Your task to perform on an android device: remove spam from my inbox in the gmail app Image 0: 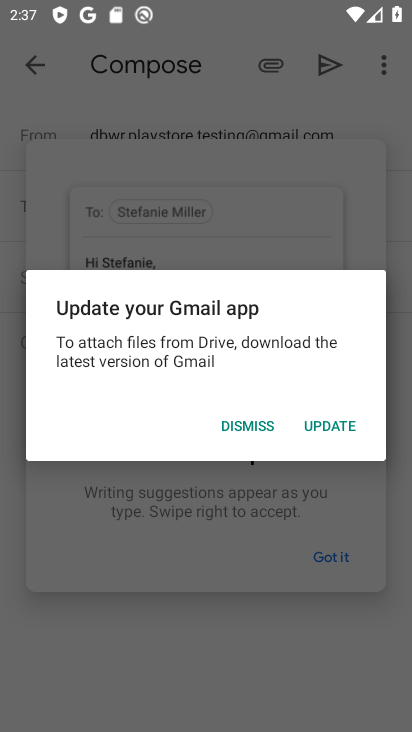
Step 0: press home button
Your task to perform on an android device: remove spam from my inbox in the gmail app Image 1: 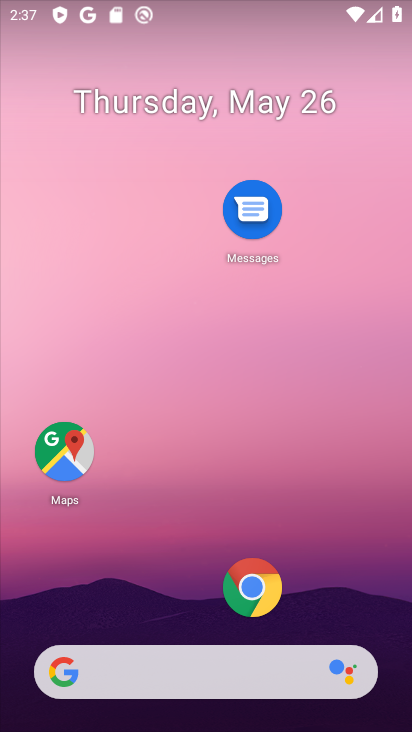
Step 1: drag from (180, 565) to (215, 216)
Your task to perform on an android device: remove spam from my inbox in the gmail app Image 2: 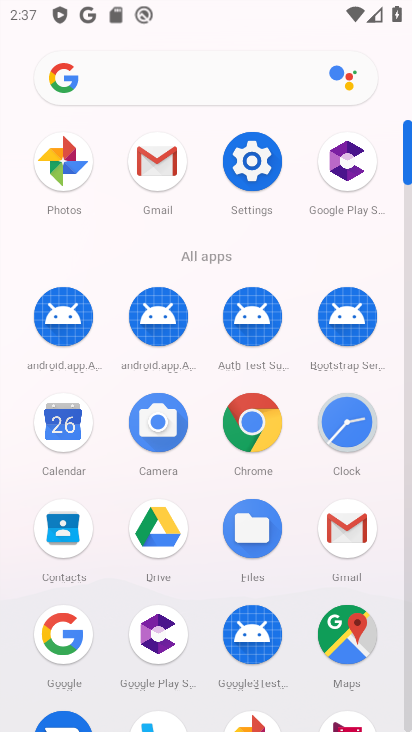
Step 2: click (336, 539)
Your task to perform on an android device: remove spam from my inbox in the gmail app Image 3: 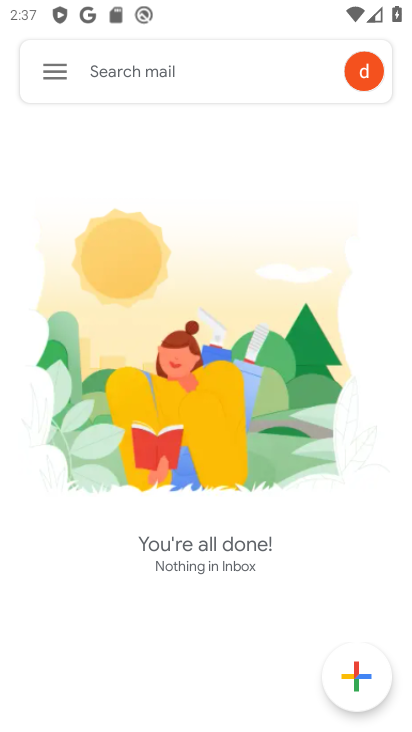
Step 3: click (44, 59)
Your task to perform on an android device: remove spam from my inbox in the gmail app Image 4: 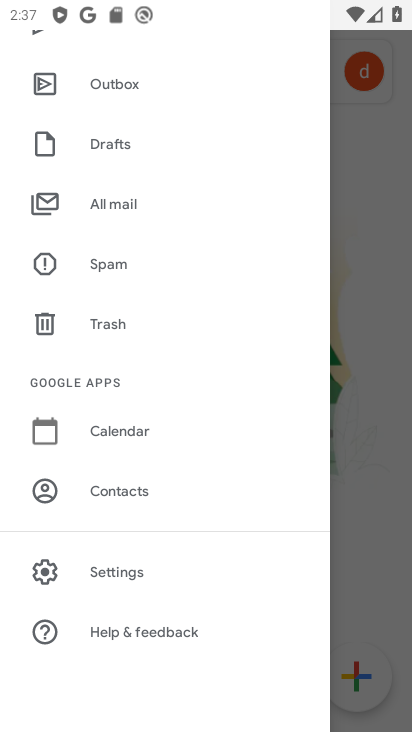
Step 4: click (117, 268)
Your task to perform on an android device: remove spam from my inbox in the gmail app Image 5: 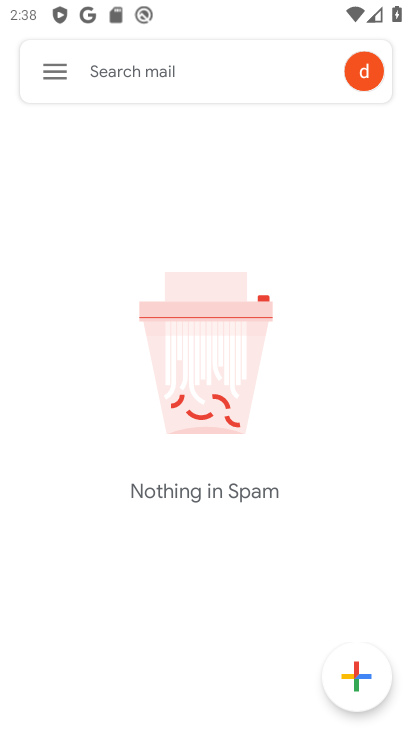
Step 5: task complete